Your task to perform on an android device: turn on priority inbox in the gmail app Image 0: 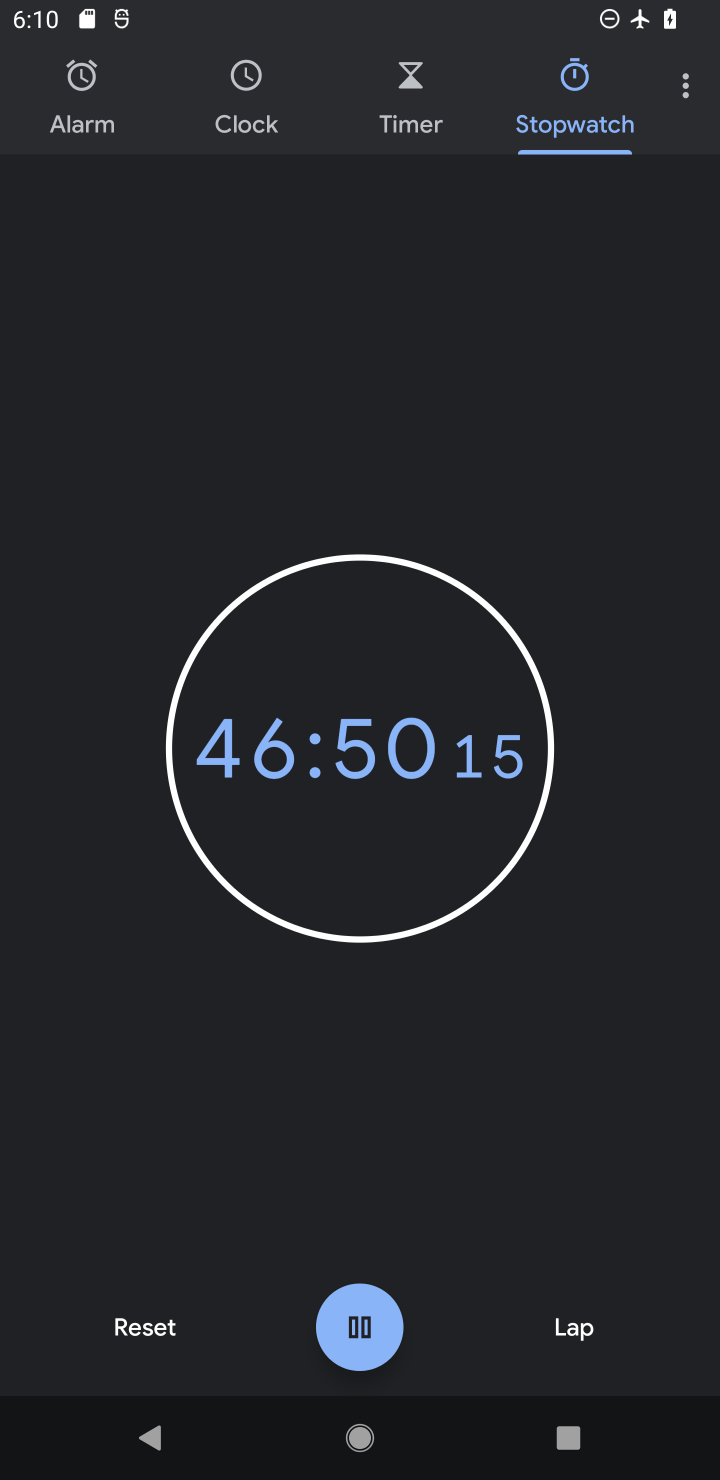
Step 0: drag from (615, 13) to (281, 1450)
Your task to perform on an android device: turn on priority inbox in the gmail app Image 1: 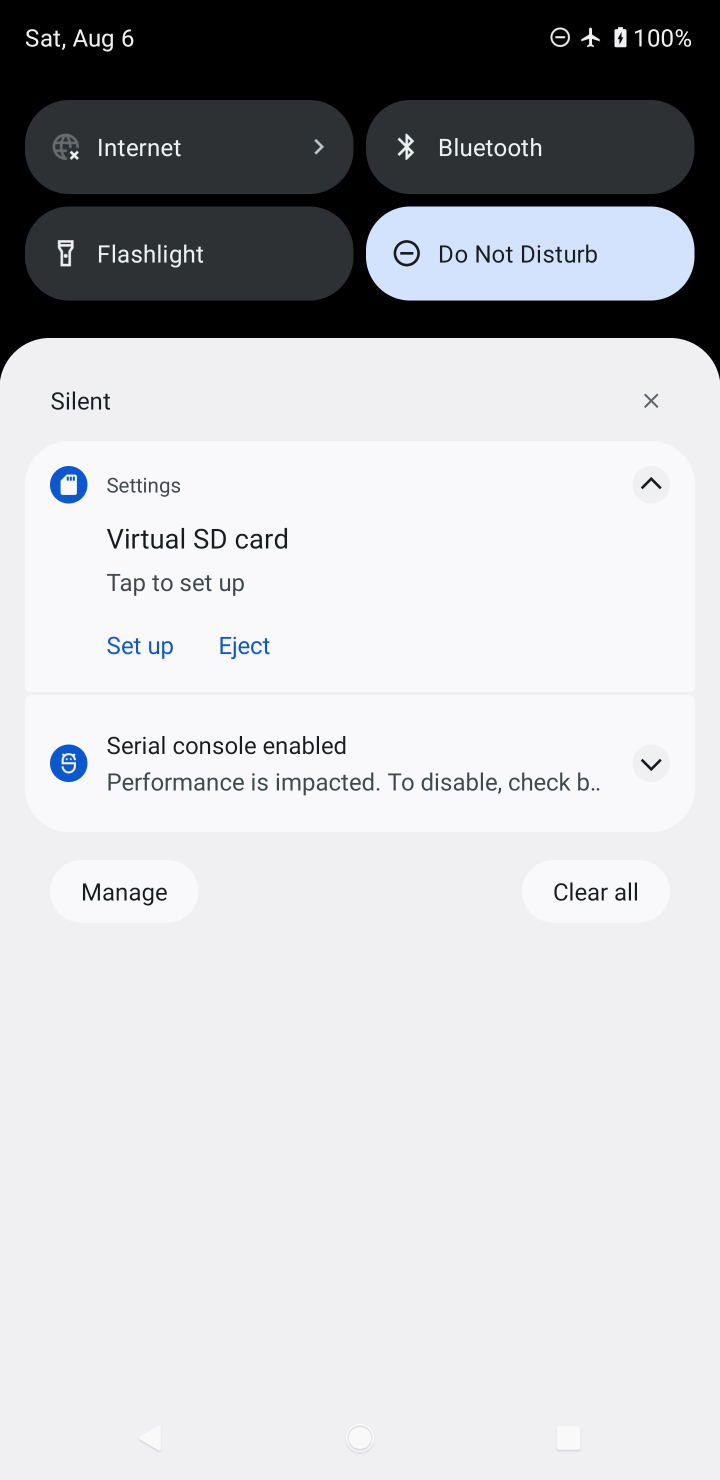
Step 1: drag from (500, 390) to (304, 1431)
Your task to perform on an android device: turn on priority inbox in the gmail app Image 2: 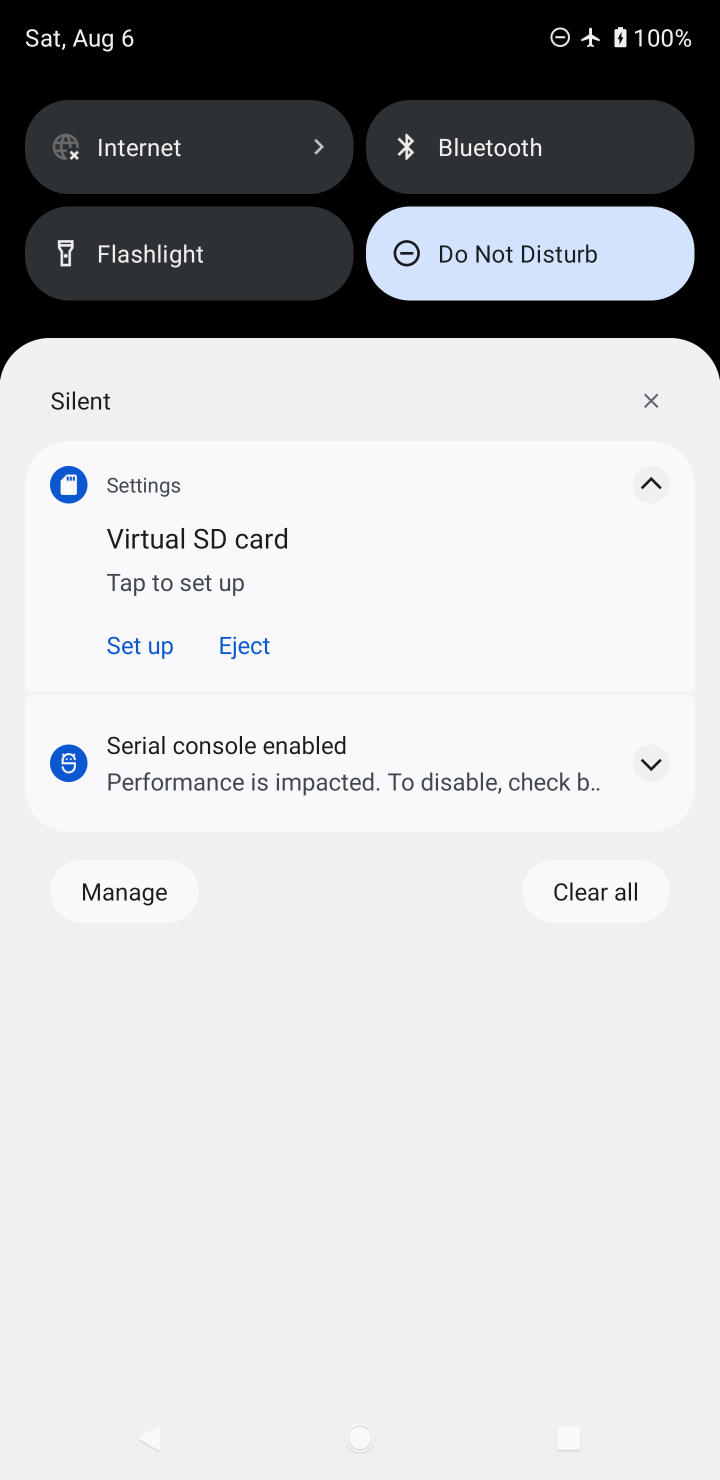
Step 2: press home button
Your task to perform on an android device: turn on priority inbox in the gmail app Image 3: 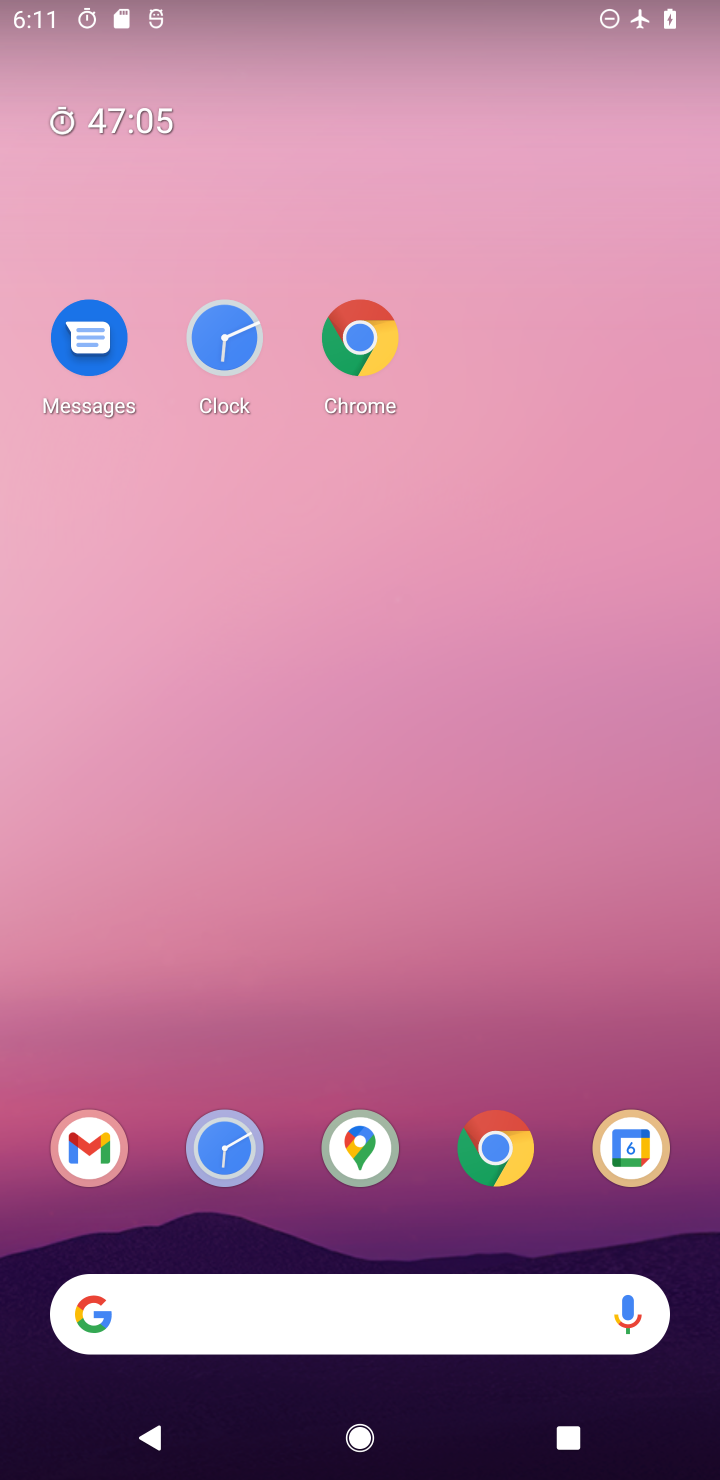
Step 3: drag from (405, 808) to (430, 444)
Your task to perform on an android device: turn on priority inbox in the gmail app Image 4: 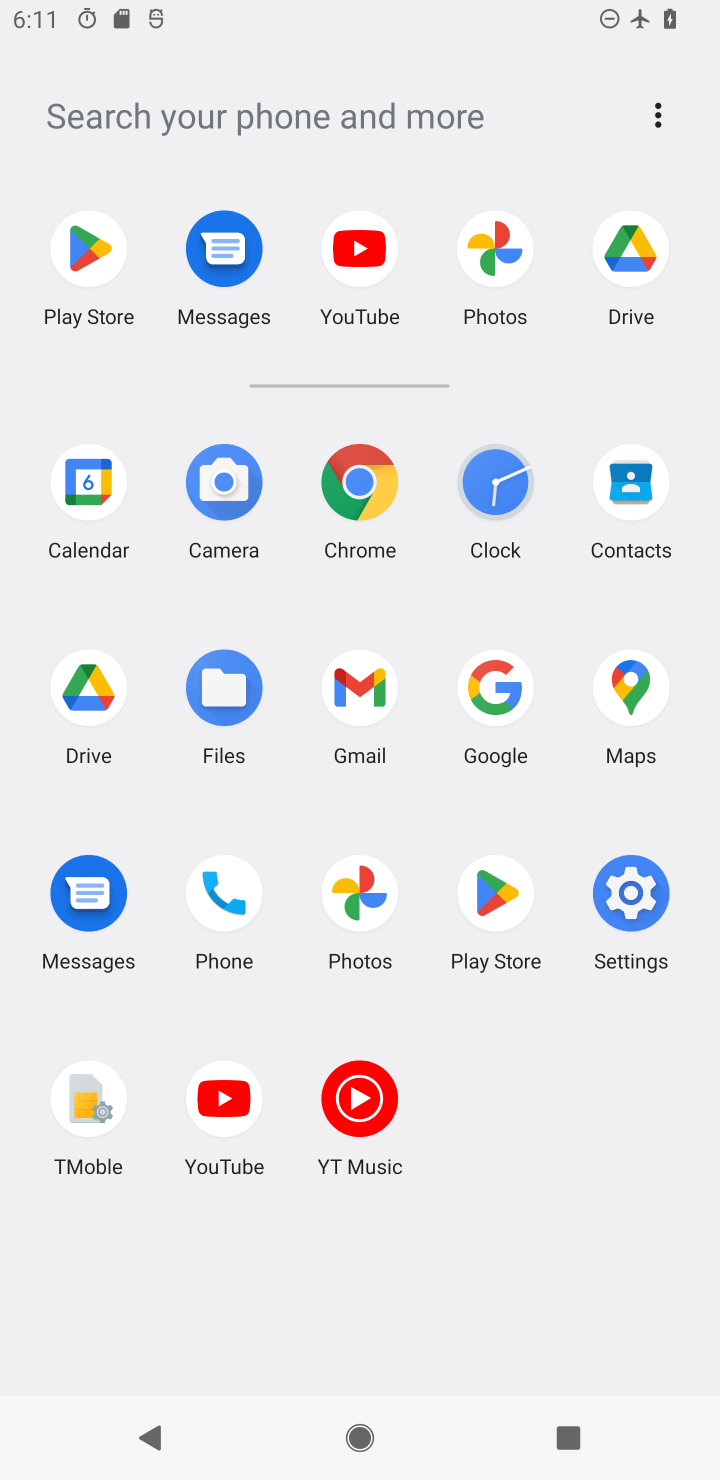
Step 4: click (362, 686)
Your task to perform on an android device: turn on priority inbox in the gmail app Image 5: 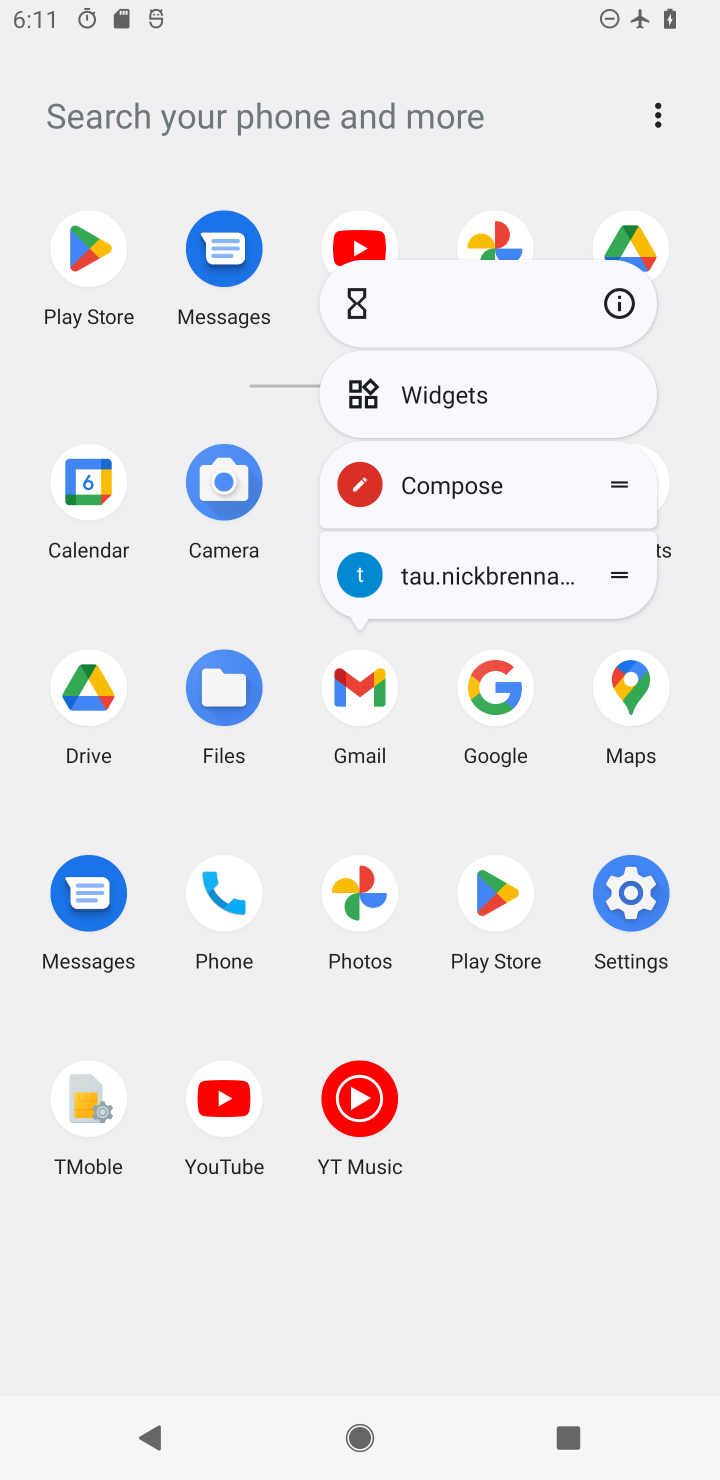
Step 5: click (621, 305)
Your task to perform on an android device: turn on priority inbox in the gmail app Image 6: 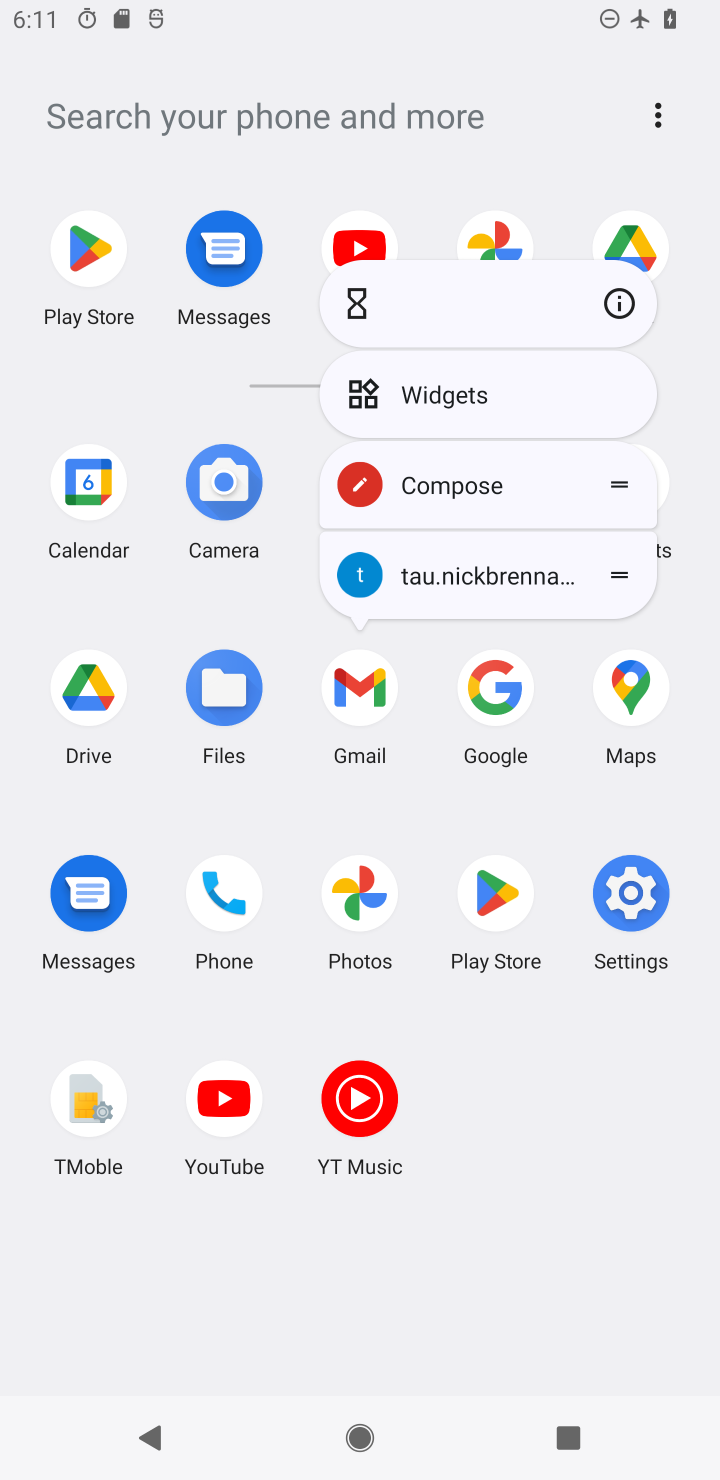
Step 6: click (339, 693)
Your task to perform on an android device: turn on priority inbox in the gmail app Image 7: 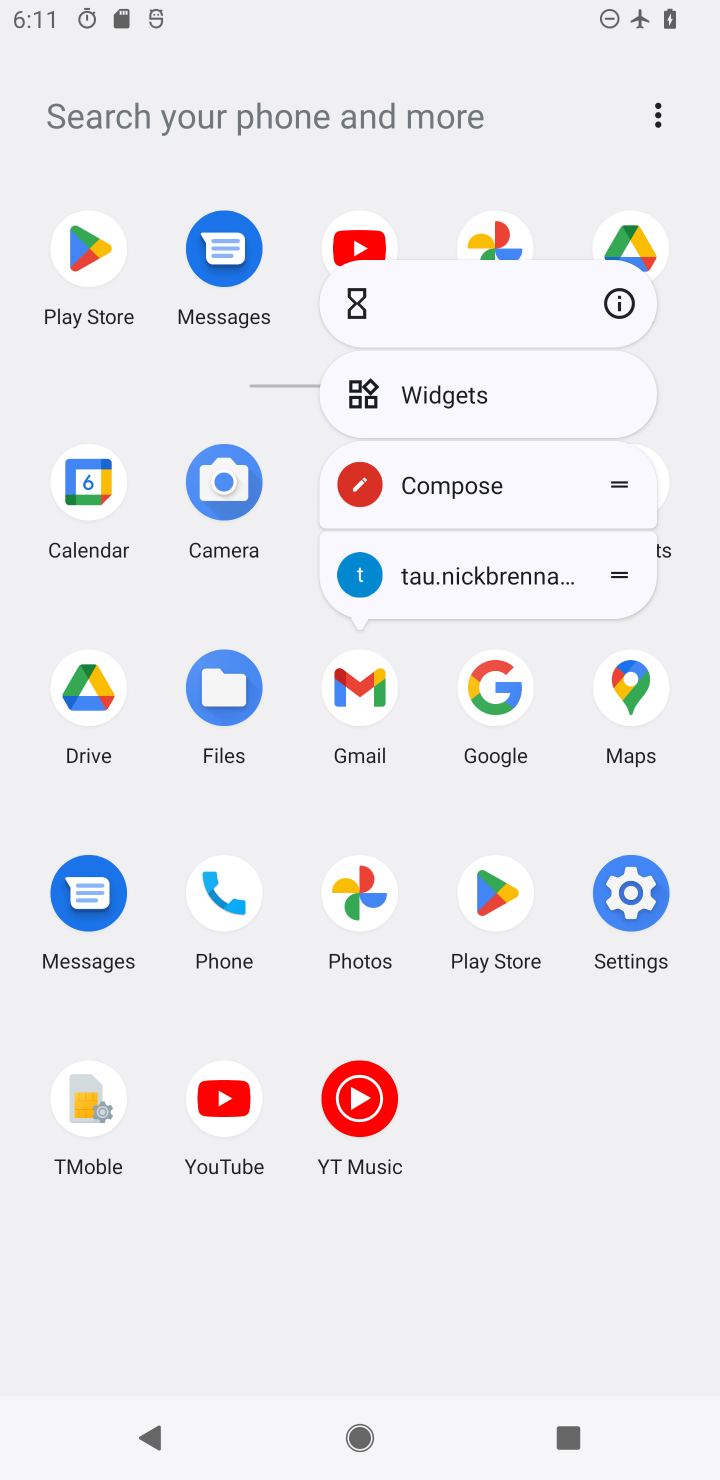
Step 7: click (611, 299)
Your task to perform on an android device: turn on priority inbox in the gmail app Image 8: 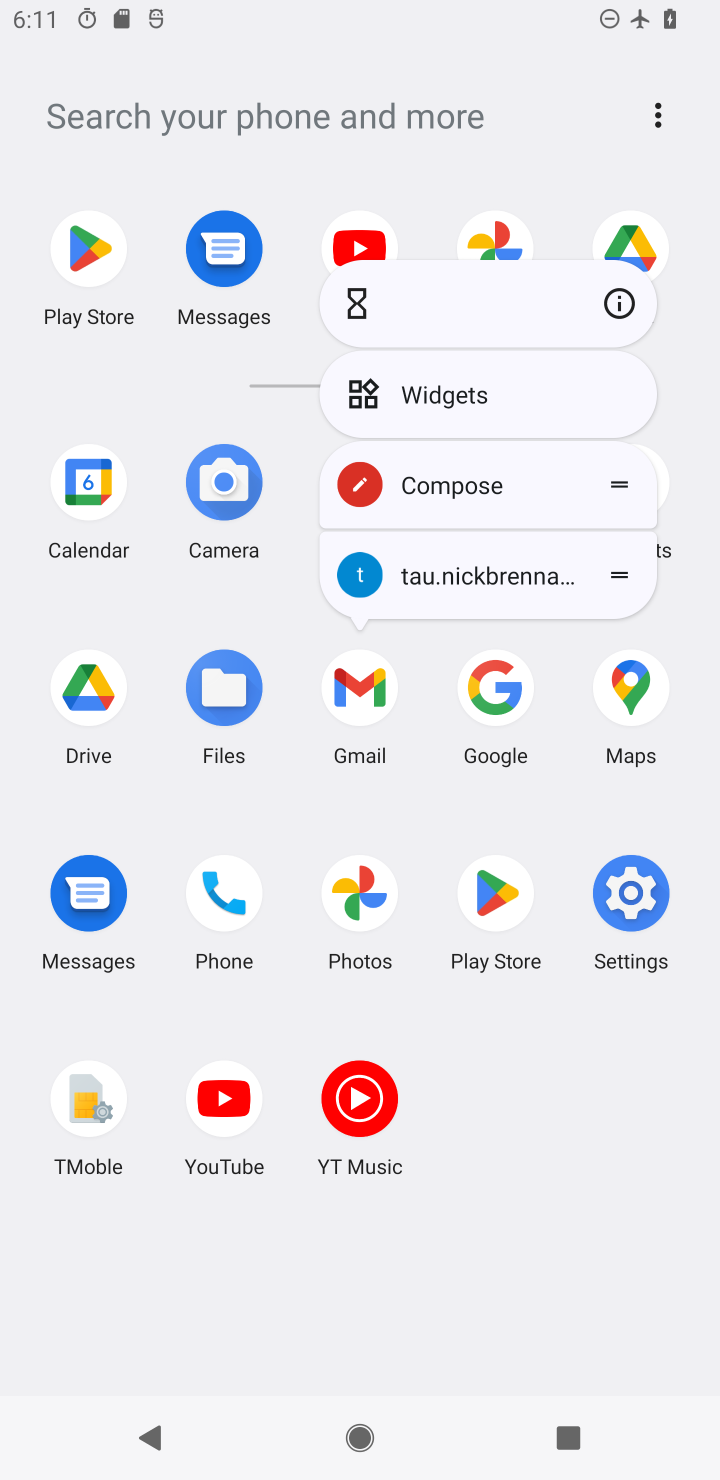
Step 8: click (612, 309)
Your task to perform on an android device: turn on priority inbox in the gmail app Image 9: 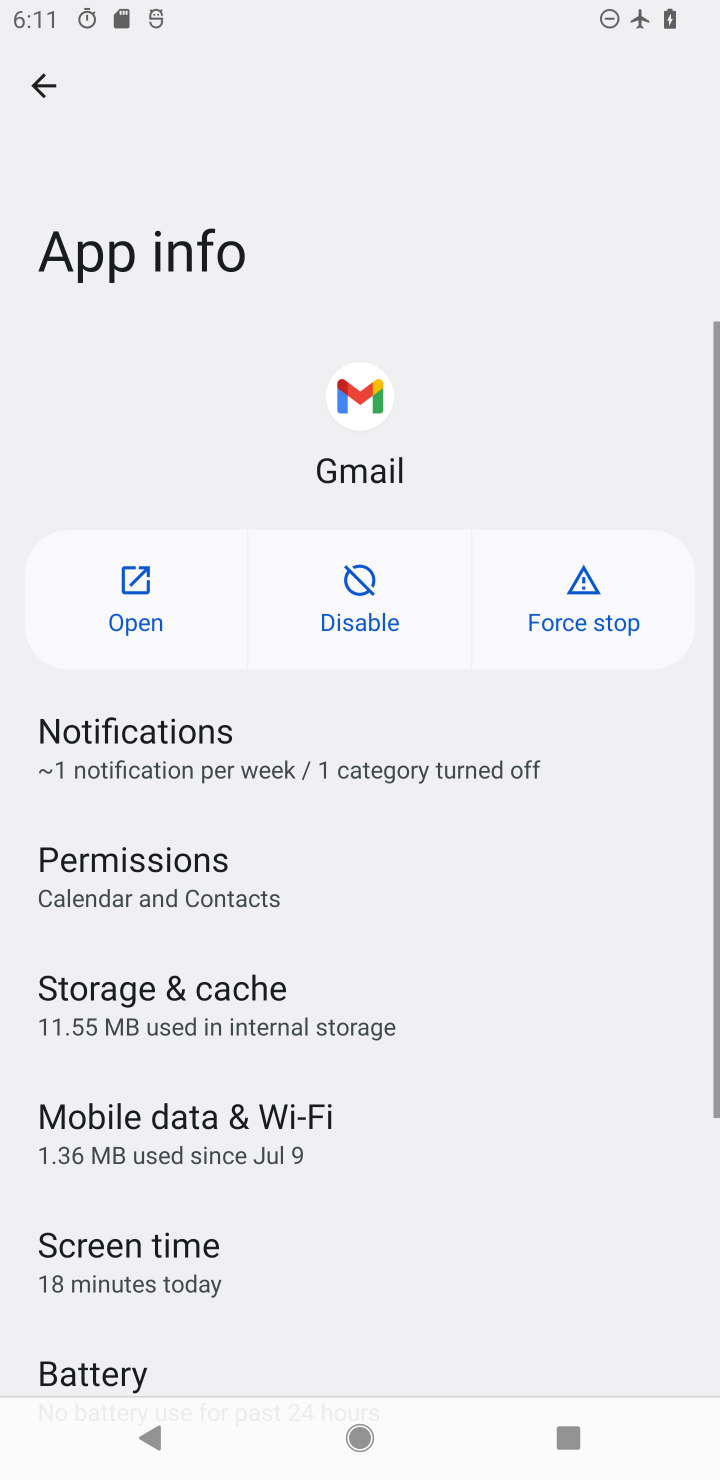
Step 9: click (154, 591)
Your task to perform on an android device: turn on priority inbox in the gmail app Image 10: 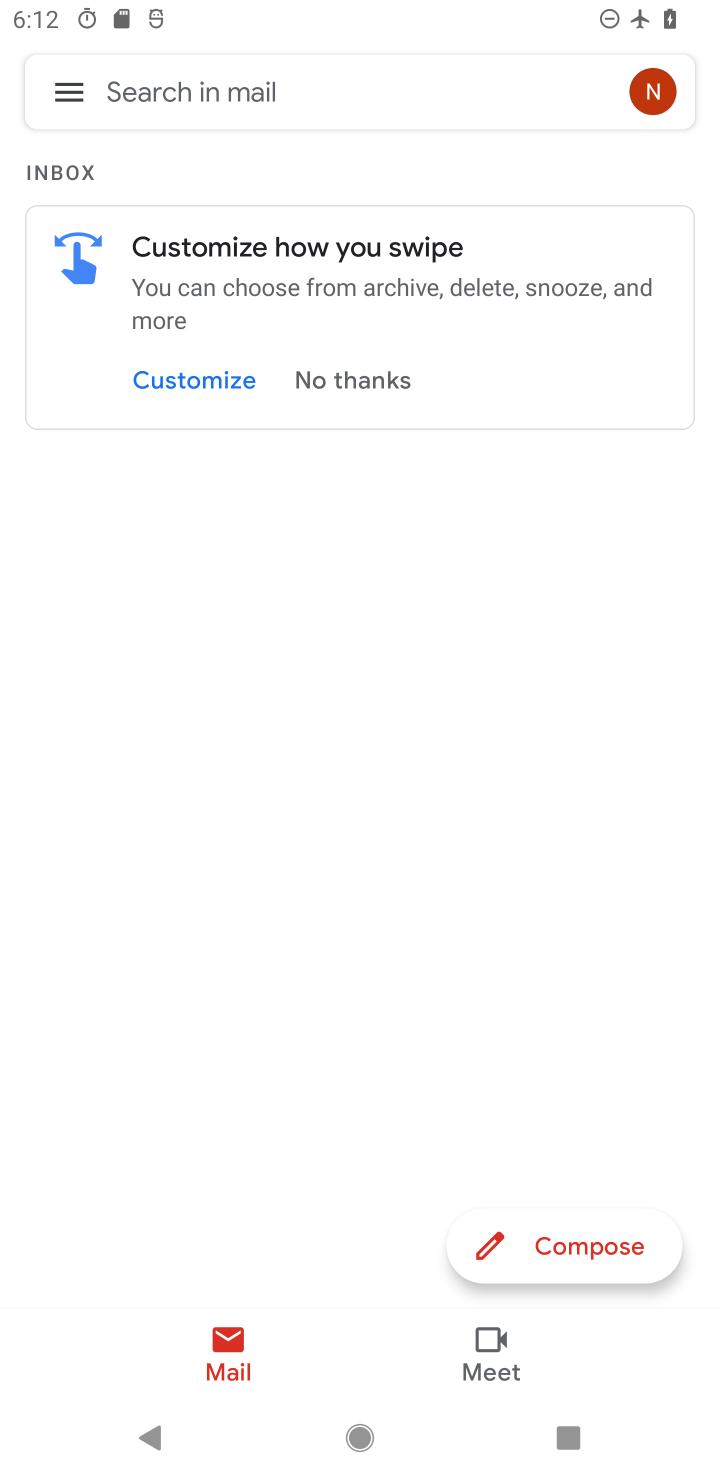
Step 10: drag from (358, 910) to (370, 721)
Your task to perform on an android device: turn on priority inbox in the gmail app Image 11: 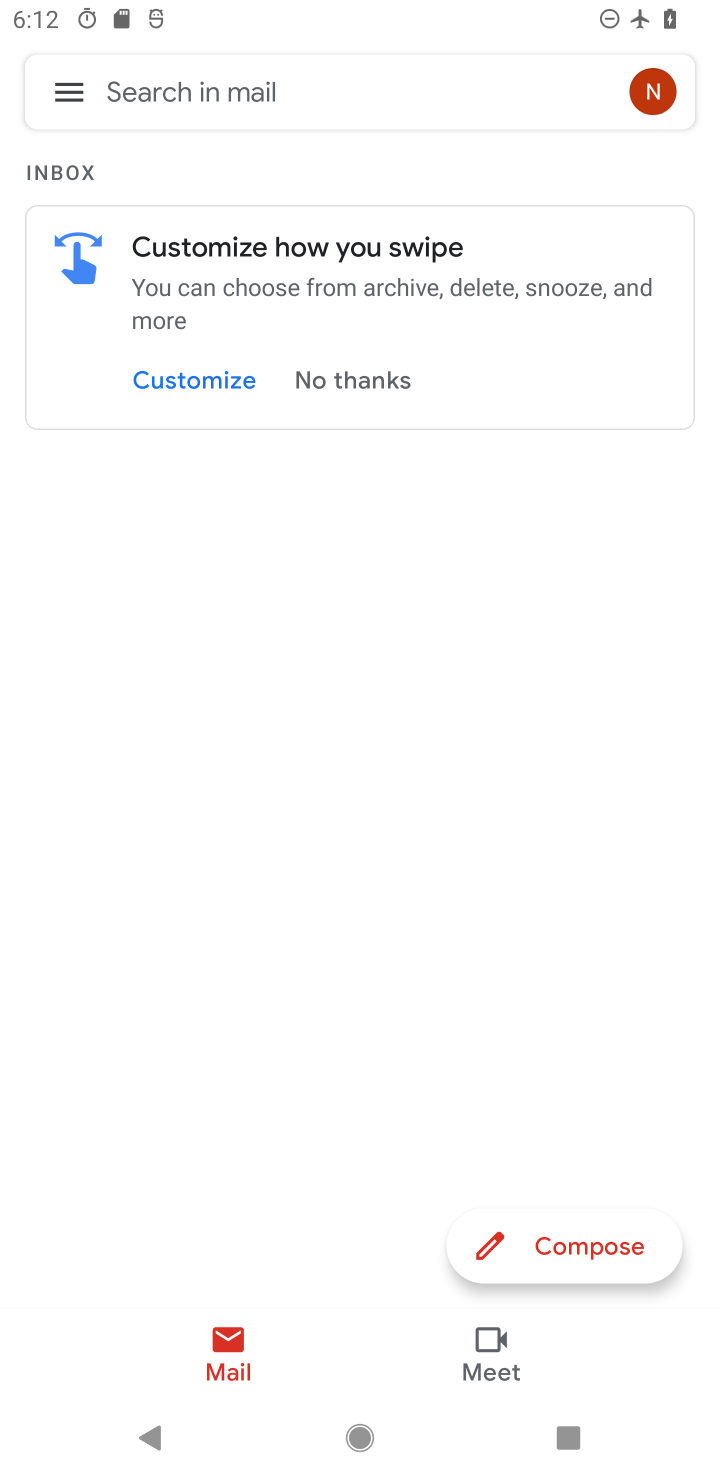
Step 11: click (52, 85)
Your task to perform on an android device: turn on priority inbox in the gmail app Image 12: 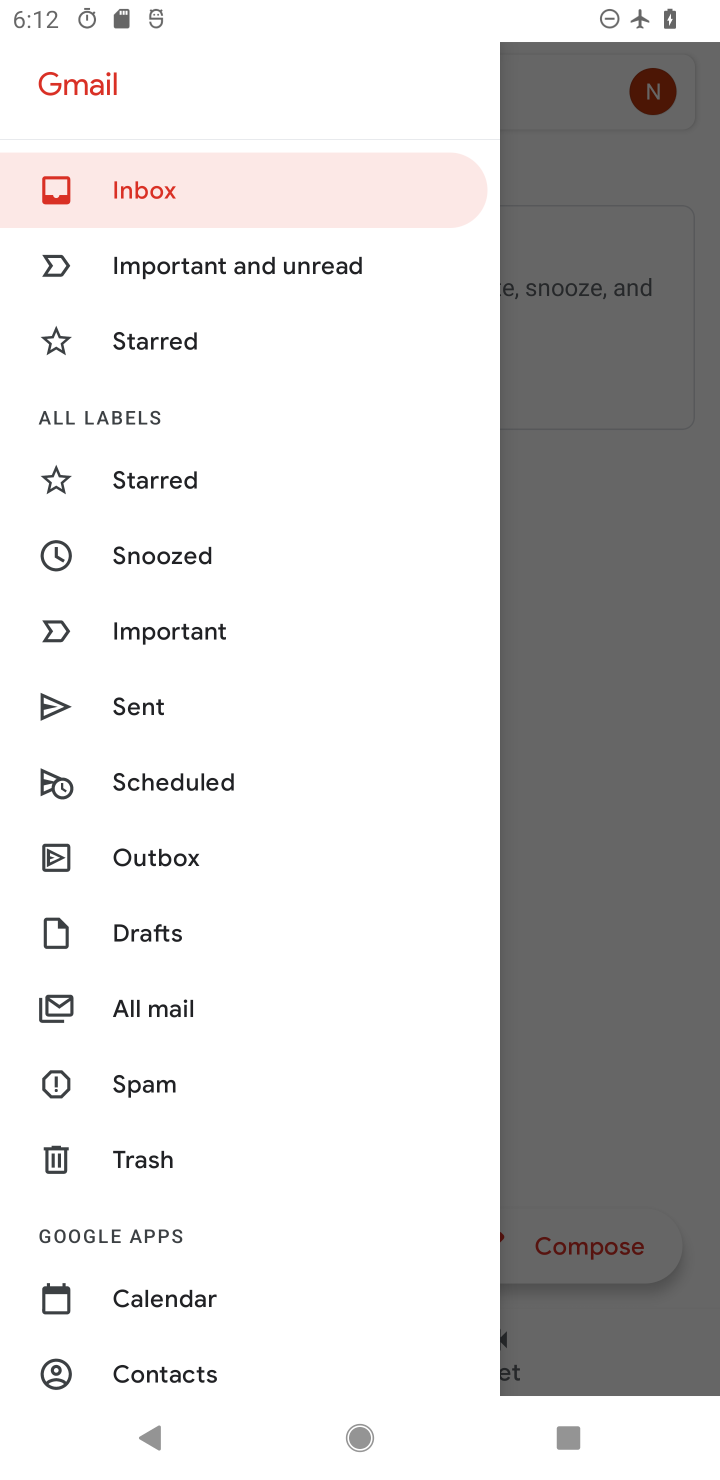
Step 12: drag from (208, 1158) to (382, 377)
Your task to perform on an android device: turn on priority inbox in the gmail app Image 13: 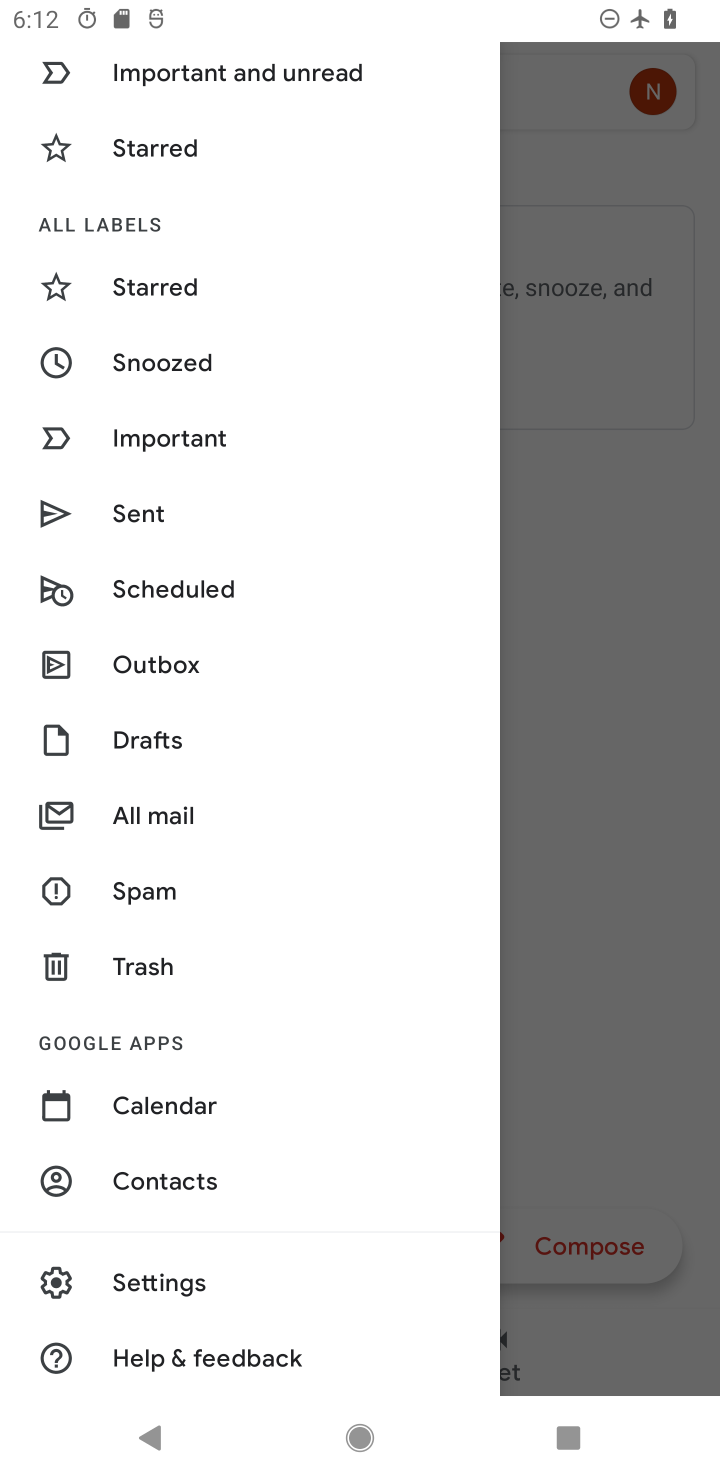
Step 13: click (193, 1290)
Your task to perform on an android device: turn on priority inbox in the gmail app Image 14: 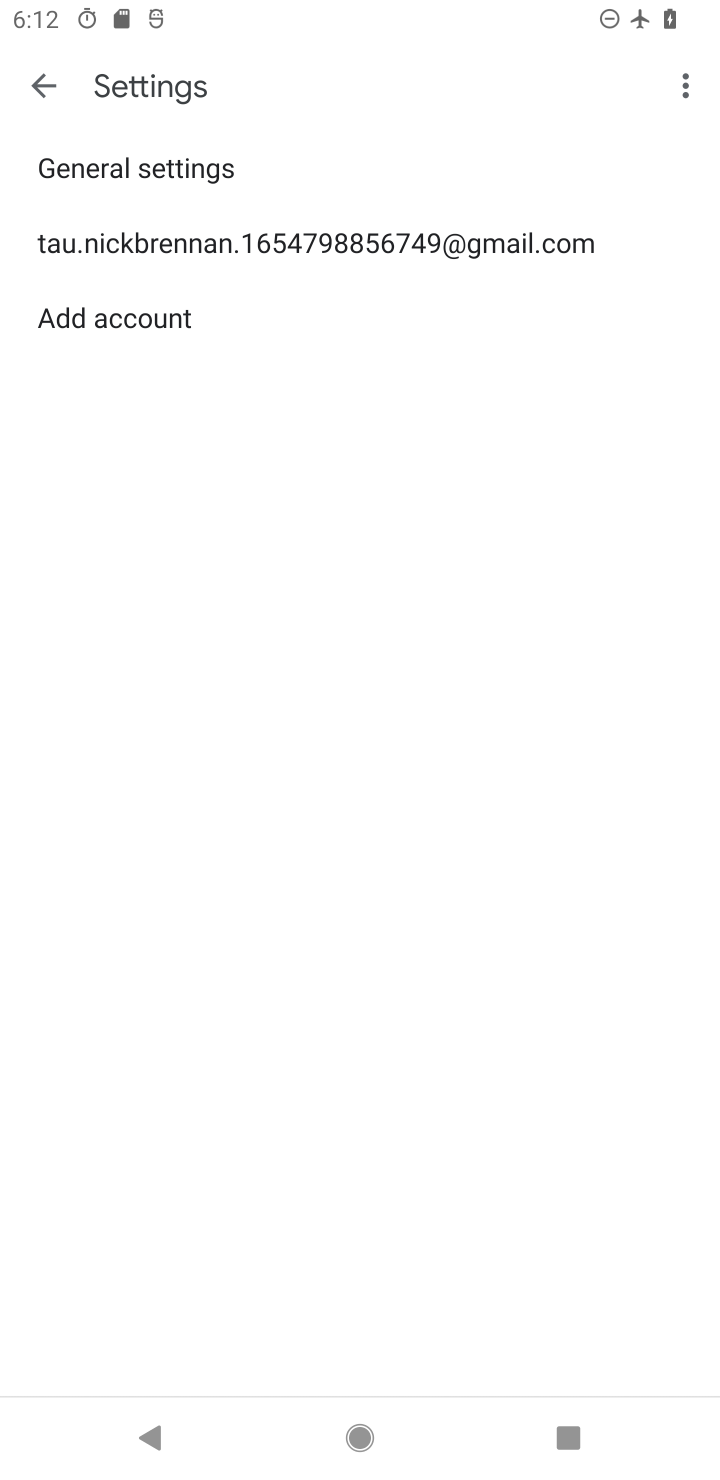
Step 14: click (236, 218)
Your task to perform on an android device: turn on priority inbox in the gmail app Image 15: 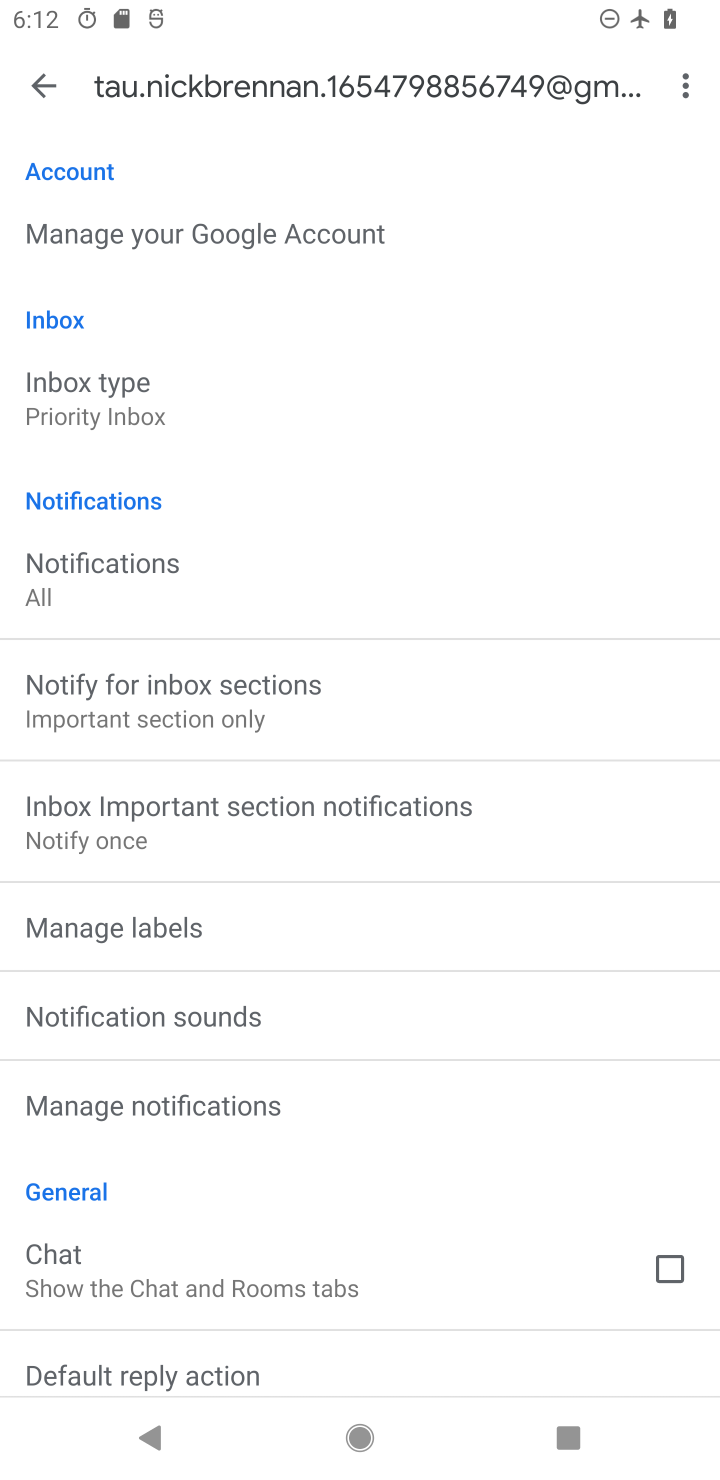
Step 15: click (159, 419)
Your task to perform on an android device: turn on priority inbox in the gmail app Image 16: 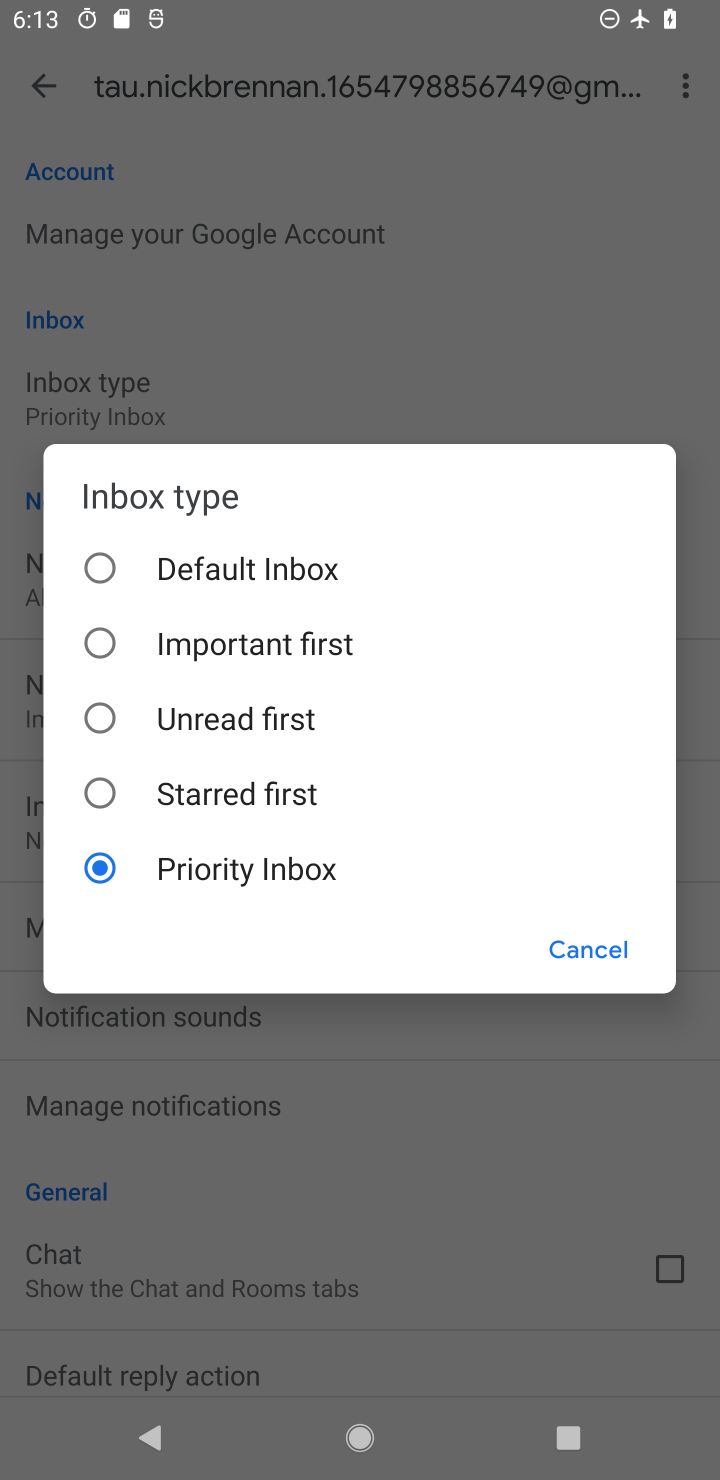
Step 16: task complete